Your task to perform on an android device: turn vacation reply on in the gmail app Image 0: 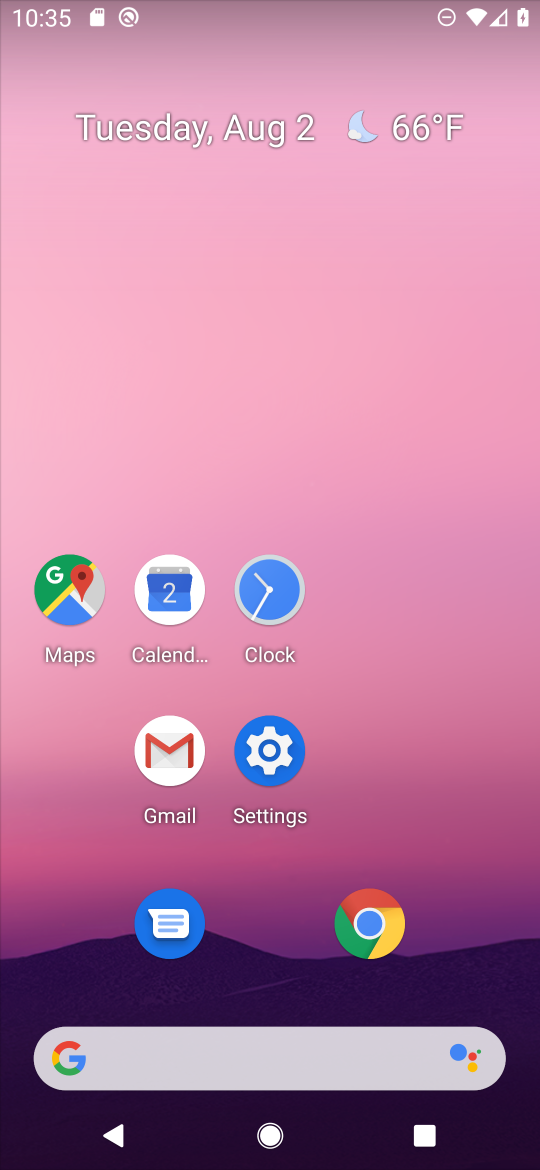
Step 0: click (177, 754)
Your task to perform on an android device: turn vacation reply on in the gmail app Image 1: 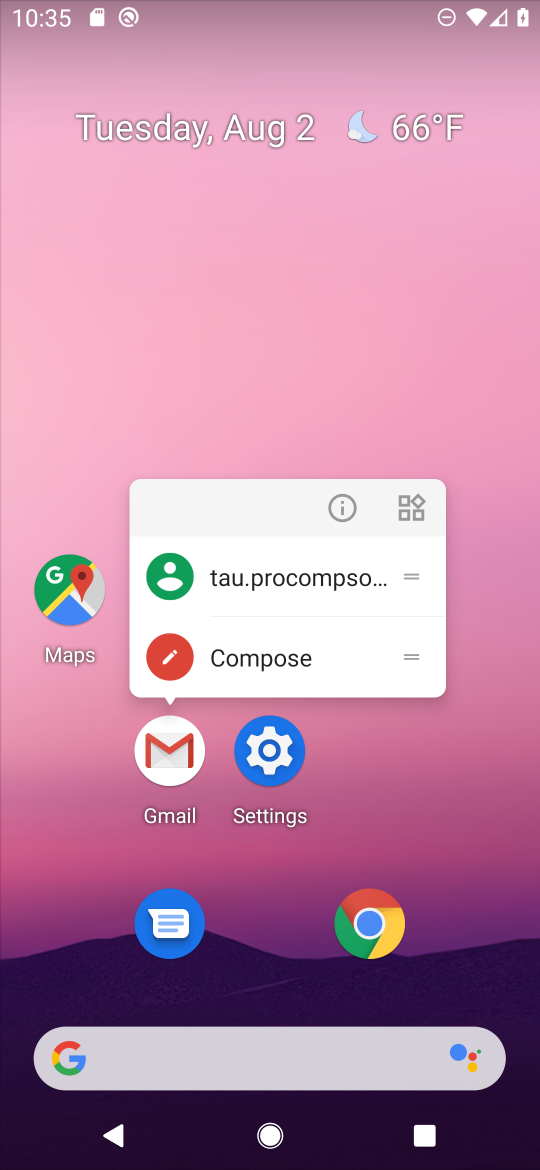
Step 1: click (177, 756)
Your task to perform on an android device: turn vacation reply on in the gmail app Image 2: 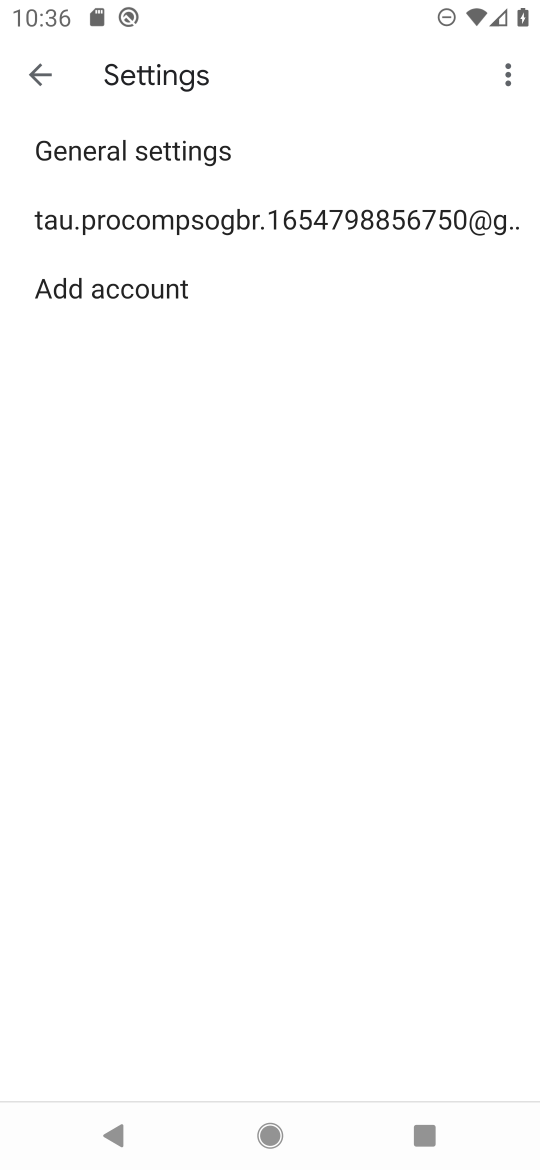
Step 2: press home button
Your task to perform on an android device: turn vacation reply on in the gmail app Image 3: 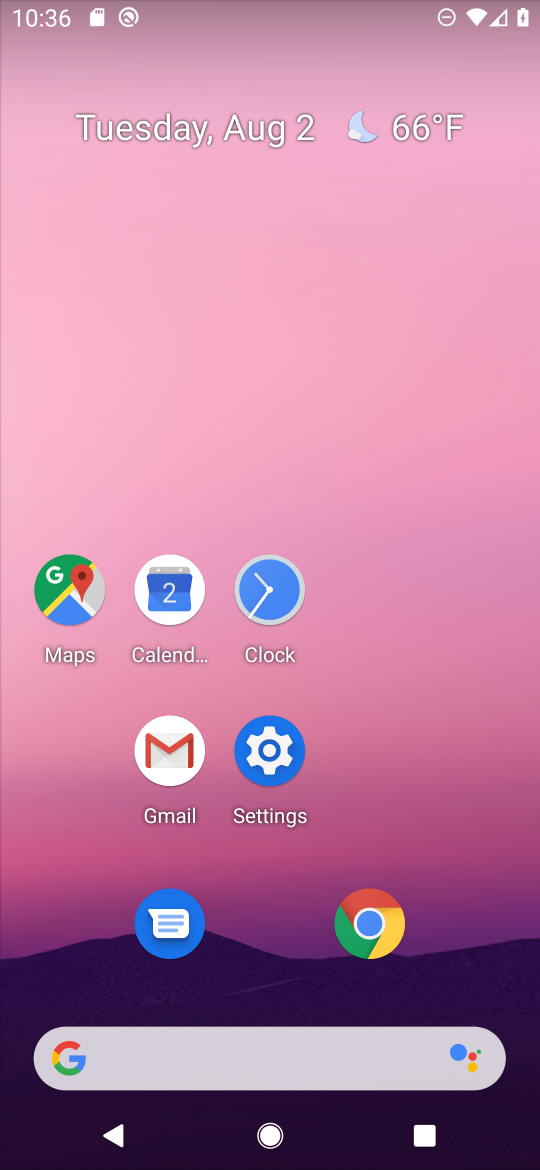
Step 3: click (153, 737)
Your task to perform on an android device: turn vacation reply on in the gmail app Image 4: 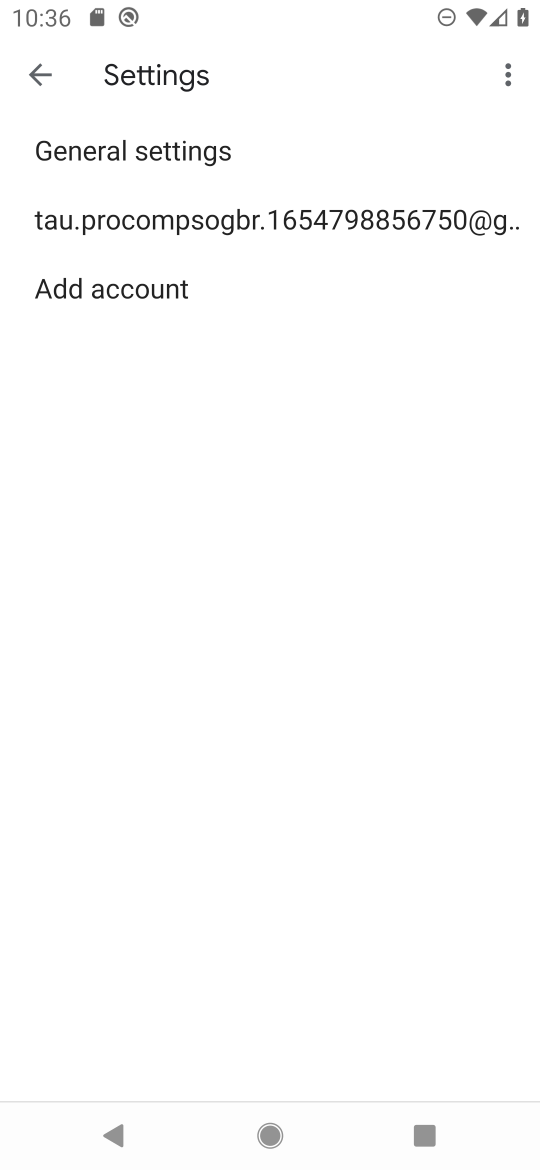
Step 4: click (239, 216)
Your task to perform on an android device: turn vacation reply on in the gmail app Image 5: 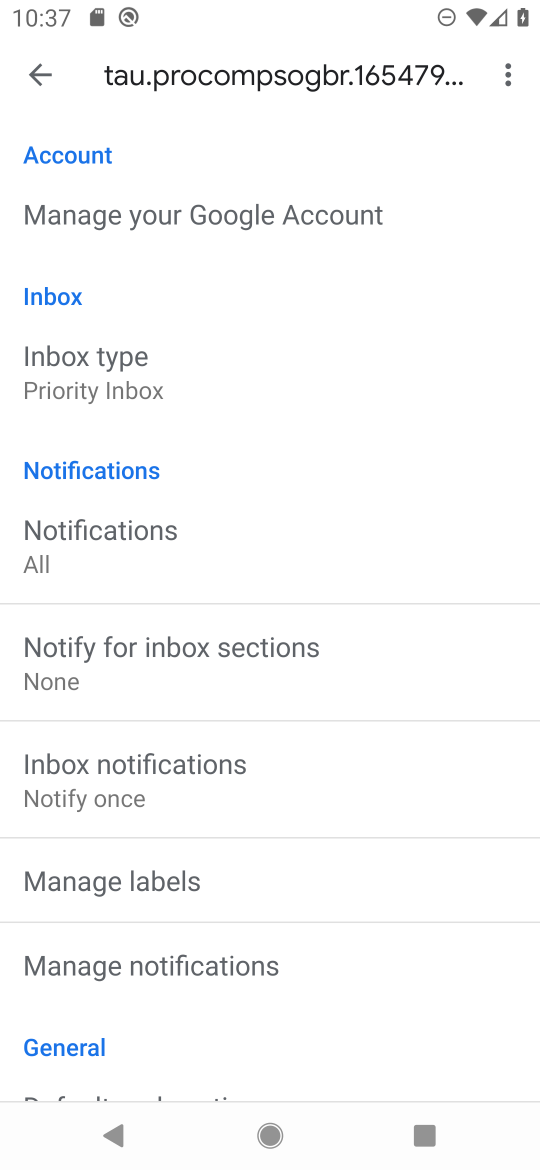
Step 5: drag from (365, 940) to (399, 196)
Your task to perform on an android device: turn vacation reply on in the gmail app Image 6: 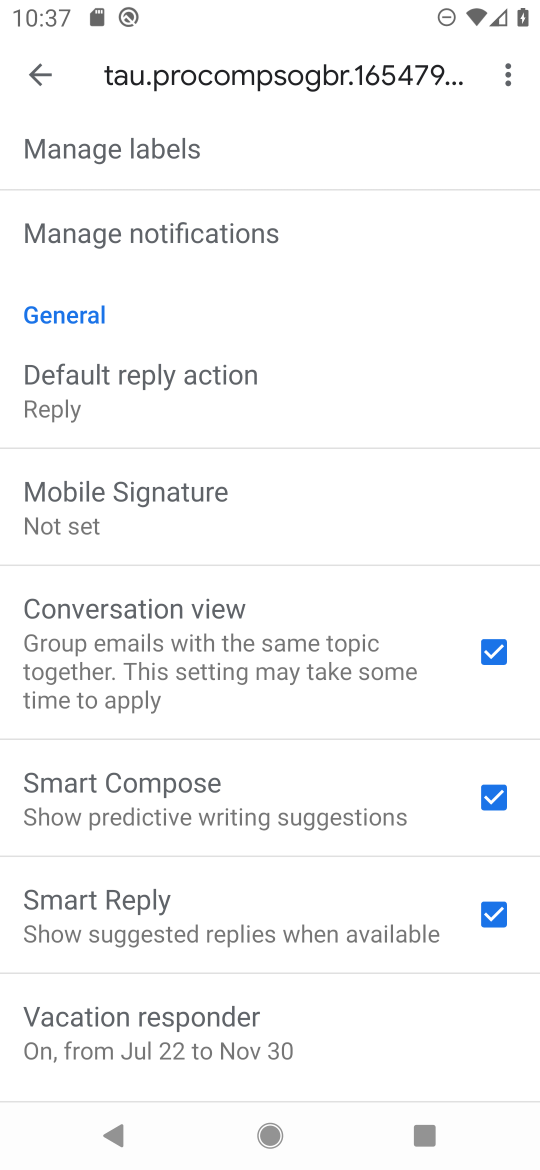
Step 6: click (127, 1038)
Your task to perform on an android device: turn vacation reply on in the gmail app Image 7: 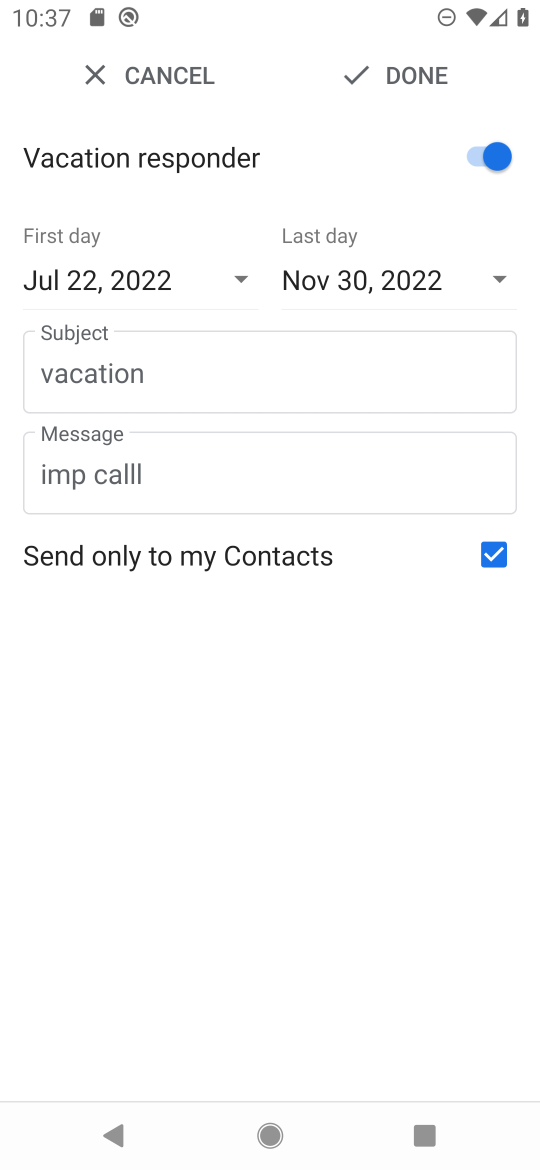
Step 7: task complete